Your task to perform on an android device: manage bookmarks in the chrome app Image 0: 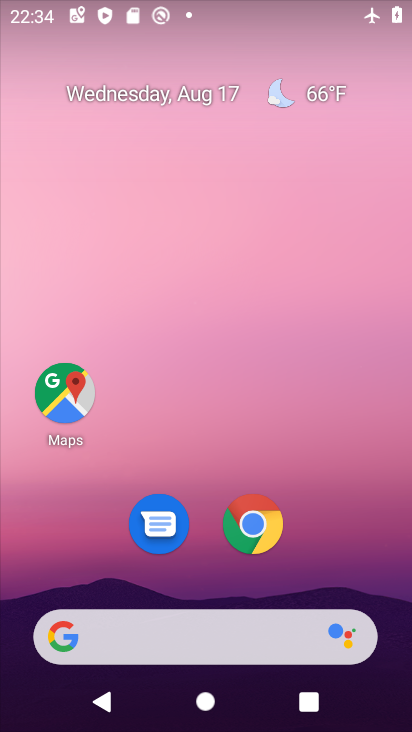
Step 0: click (256, 526)
Your task to perform on an android device: manage bookmarks in the chrome app Image 1: 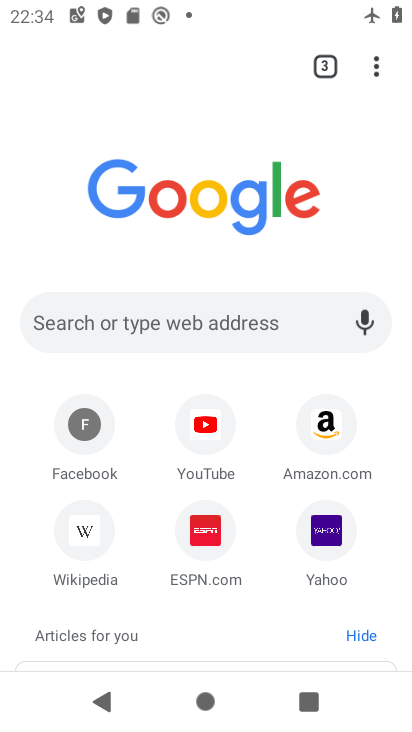
Step 1: click (377, 69)
Your task to perform on an android device: manage bookmarks in the chrome app Image 2: 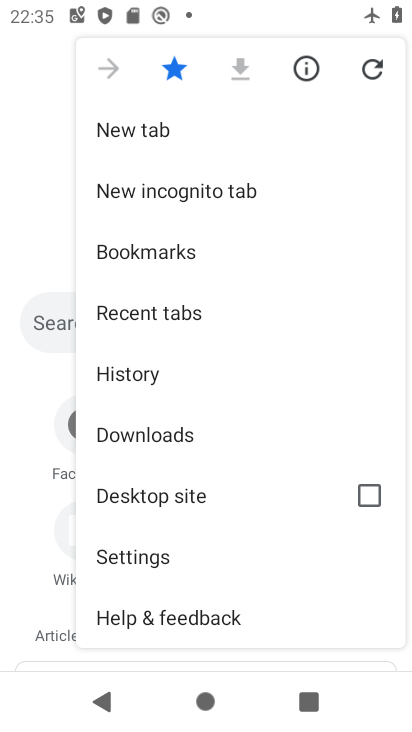
Step 2: click (196, 251)
Your task to perform on an android device: manage bookmarks in the chrome app Image 3: 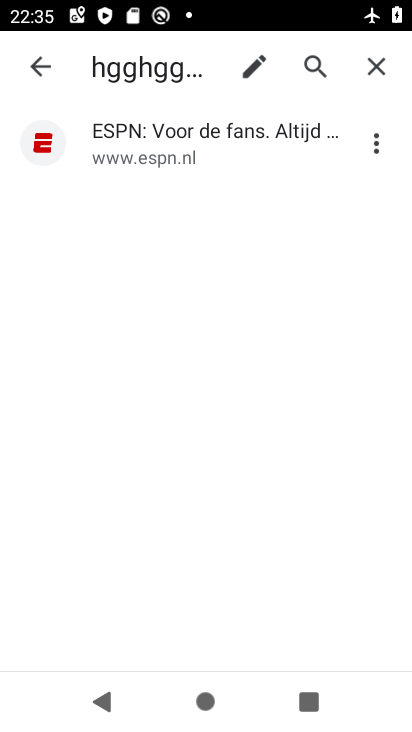
Step 3: click (372, 144)
Your task to perform on an android device: manage bookmarks in the chrome app Image 4: 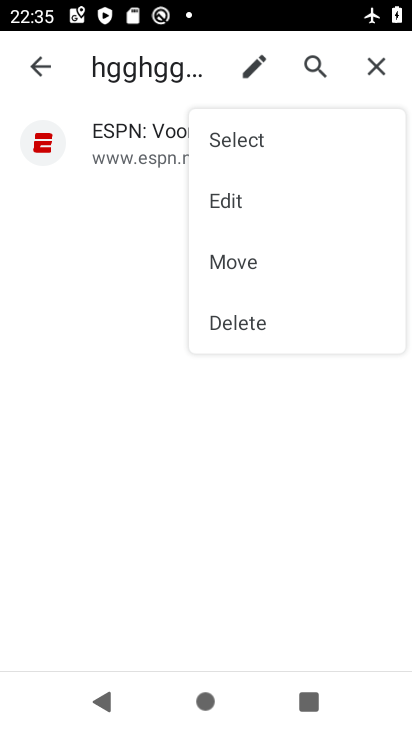
Step 4: click (250, 199)
Your task to perform on an android device: manage bookmarks in the chrome app Image 5: 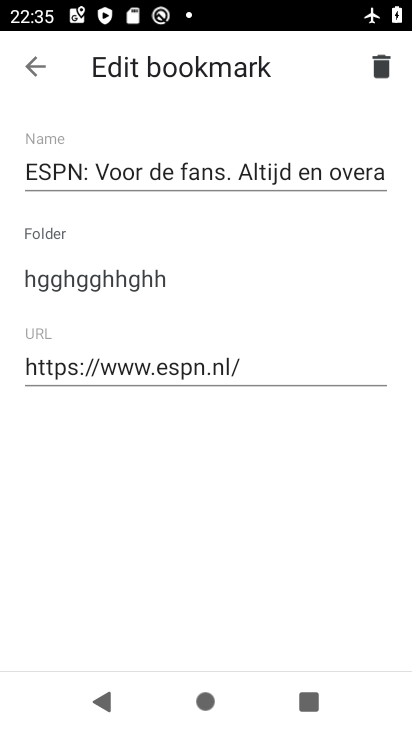
Step 5: task complete